Your task to perform on an android device: turn on improve location accuracy Image 0: 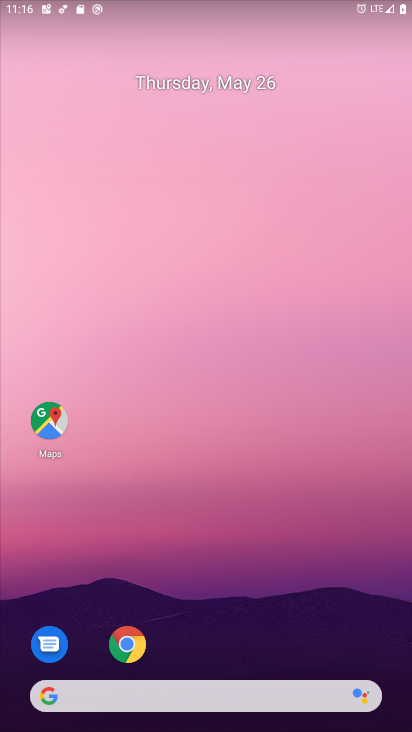
Step 0: drag from (349, 645) to (355, 224)
Your task to perform on an android device: turn on improve location accuracy Image 1: 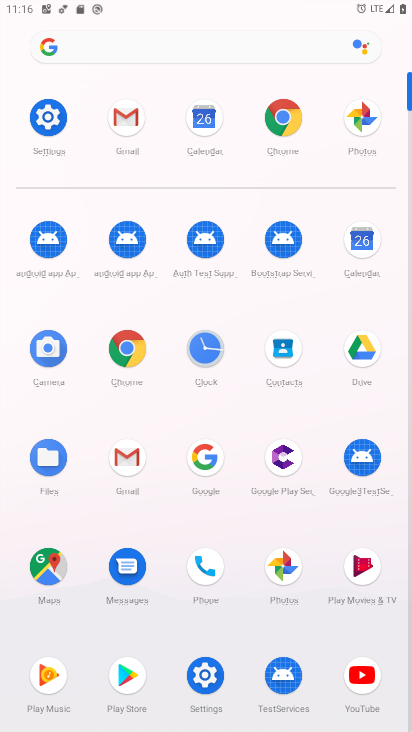
Step 1: click (207, 682)
Your task to perform on an android device: turn on improve location accuracy Image 2: 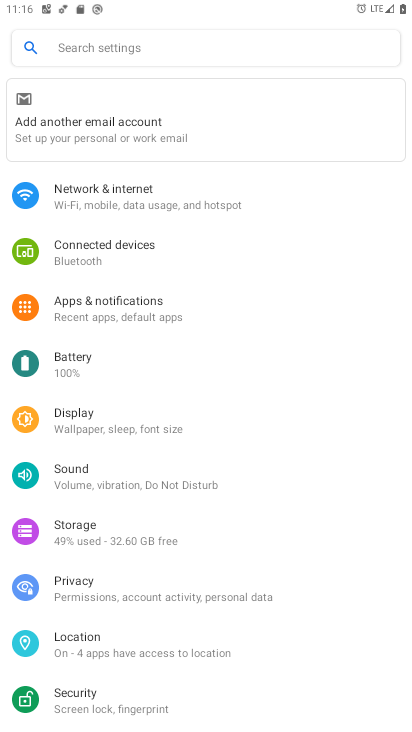
Step 2: drag from (324, 269) to (332, 456)
Your task to perform on an android device: turn on improve location accuracy Image 3: 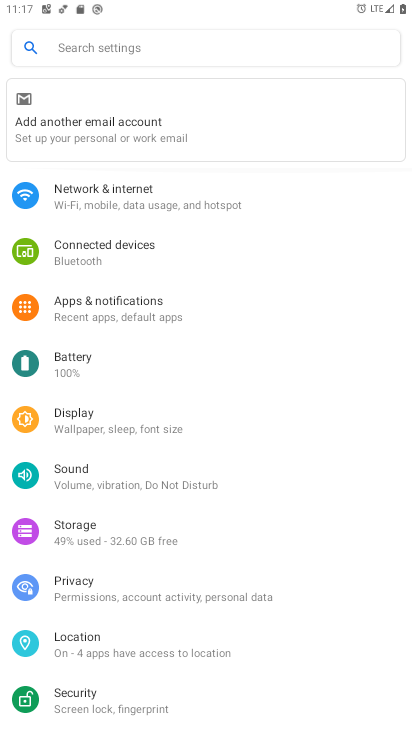
Step 3: drag from (319, 544) to (323, 374)
Your task to perform on an android device: turn on improve location accuracy Image 4: 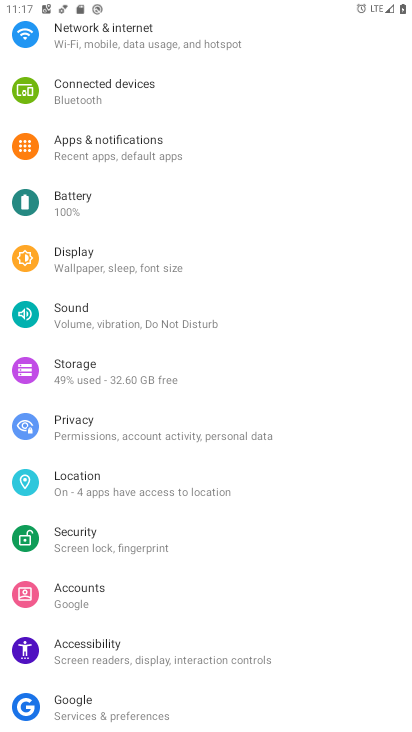
Step 4: drag from (317, 561) to (321, 447)
Your task to perform on an android device: turn on improve location accuracy Image 5: 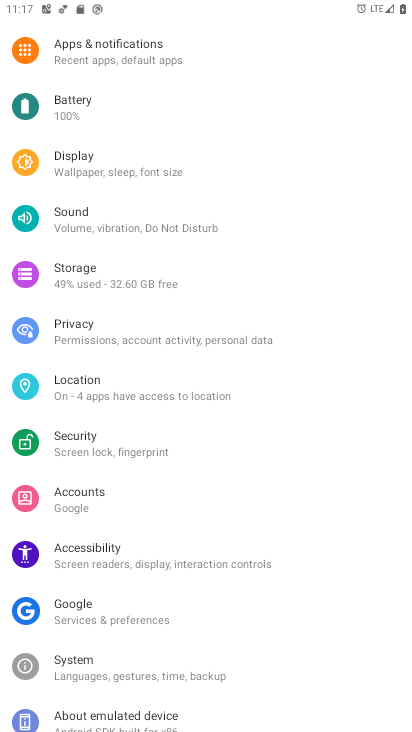
Step 5: drag from (303, 566) to (309, 404)
Your task to perform on an android device: turn on improve location accuracy Image 6: 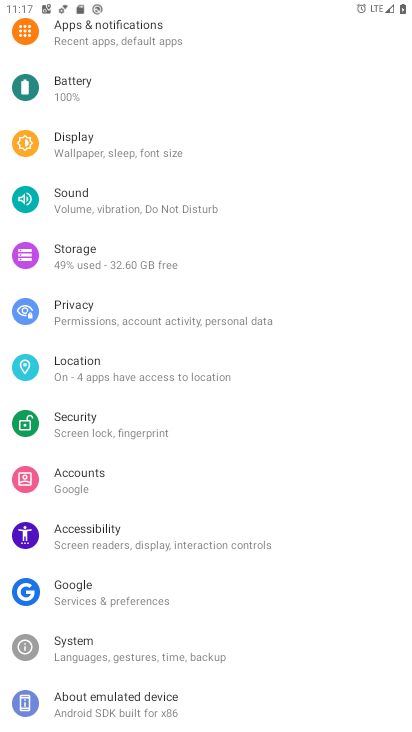
Step 6: click (177, 369)
Your task to perform on an android device: turn on improve location accuracy Image 7: 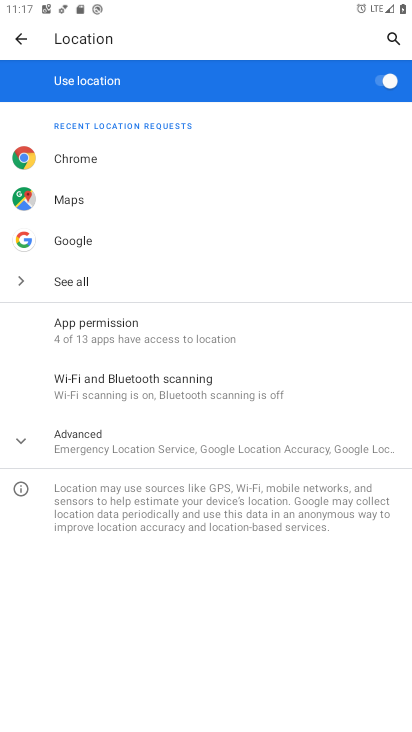
Step 7: click (201, 444)
Your task to perform on an android device: turn on improve location accuracy Image 8: 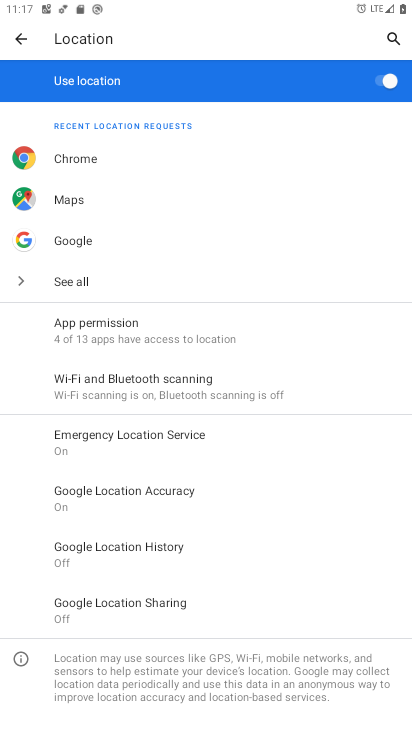
Step 8: click (171, 503)
Your task to perform on an android device: turn on improve location accuracy Image 9: 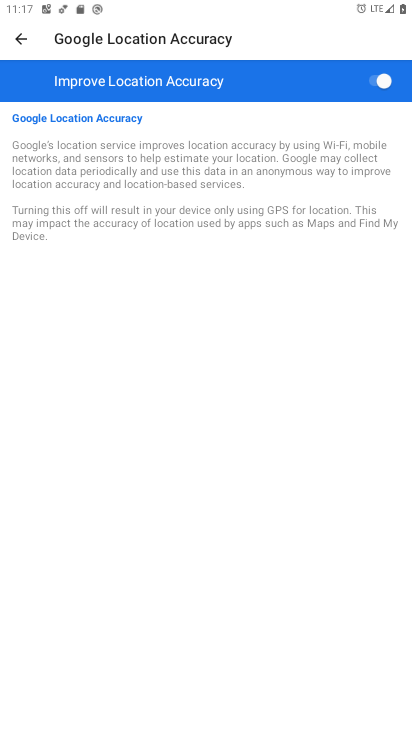
Step 9: task complete